Your task to perform on an android device: turn pop-ups on in chrome Image 0: 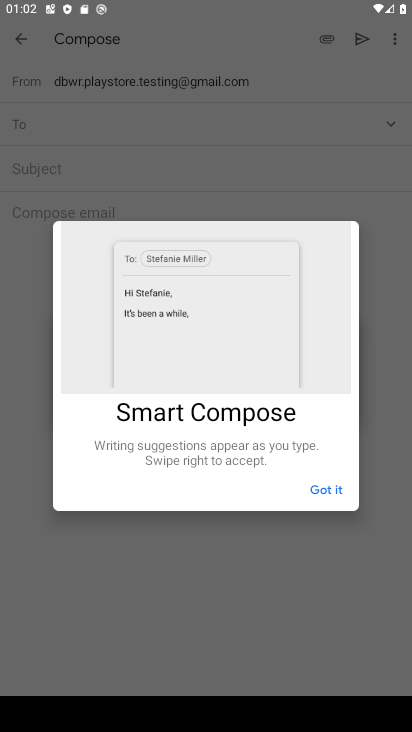
Step 0: press home button
Your task to perform on an android device: turn pop-ups on in chrome Image 1: 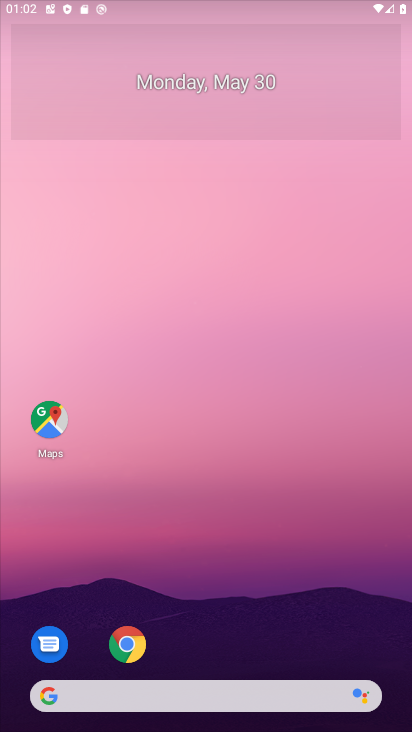
Step 1: drag from (374, 585) to (363, 84)
Your task to perform on an android device: turn pop-ups on in chrome Image 2: 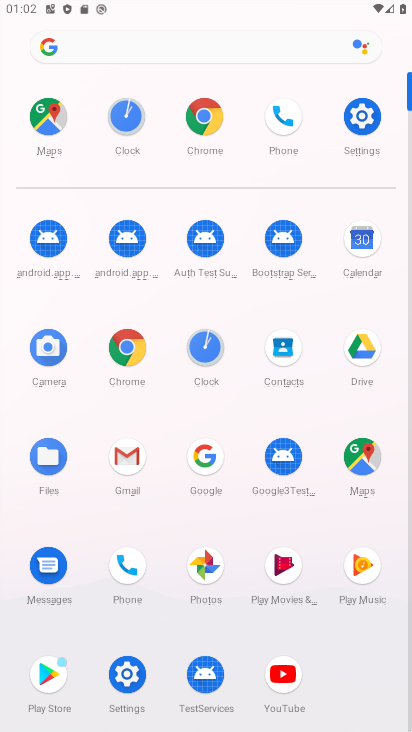
Step 2: click (131, 340)
Your task to perform on an android device: turn pop-ups on in chrome Image 3: 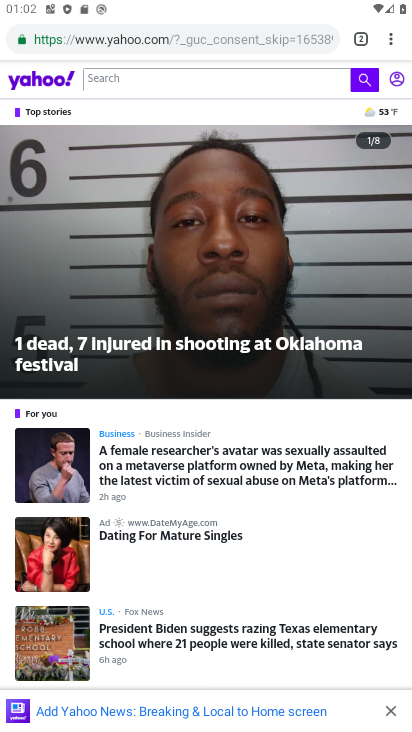
Step 3: drag from (389, 50) to (309, 440)
Your task to perform on an android device: turn pop-ups on in chrome Image 4: 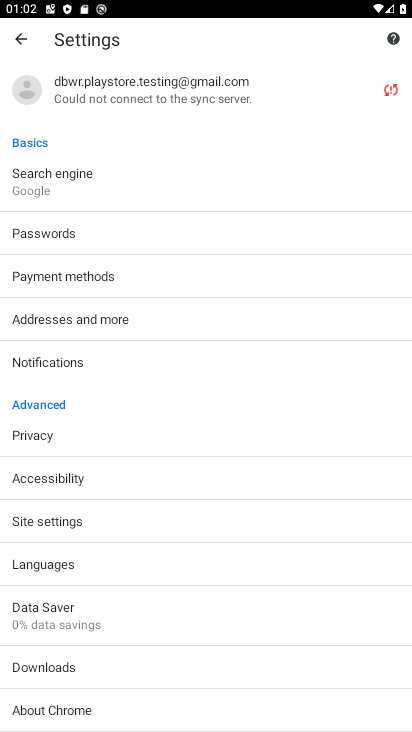
Step 4: drag from (223, 636) to (315, 271)
Your task to perform on an android device: turn pop-ups on in chrome Image 5: 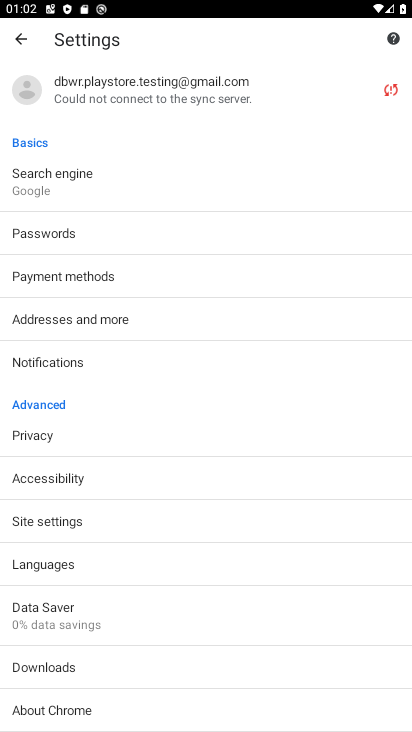
Step 5: click (52, 530)
Your task to perform on an android device: turn pop-ups on in chrome Image 6: 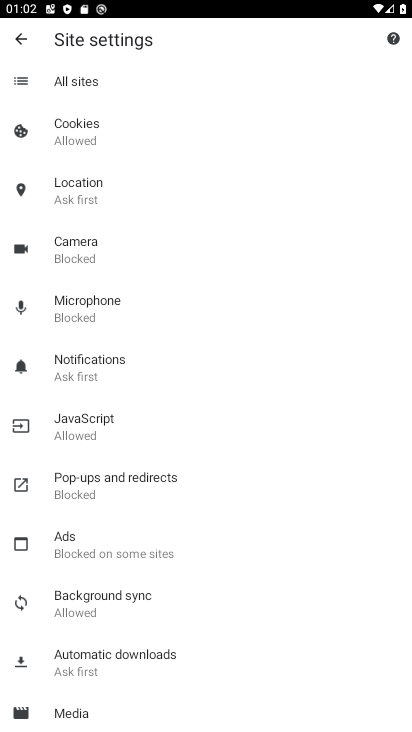
Step 6: drag from (230, 624) to (281, 427)
Your task to perform on an android device: turn pop-ups on in chrome Image 7: 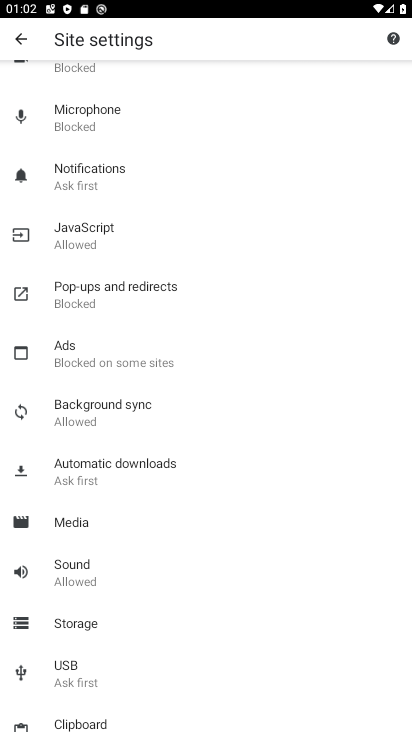
Step 7: click (192, 284)
Your task to perform on an android device: turn pop-ups on in chrome Image 8: 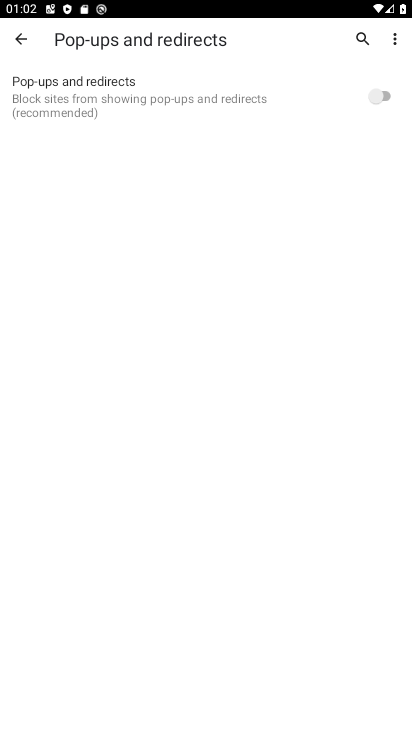
Step 8: click (381, 93)
Your task to perform on an android device: turn pop-ups on in chrome Image 9: 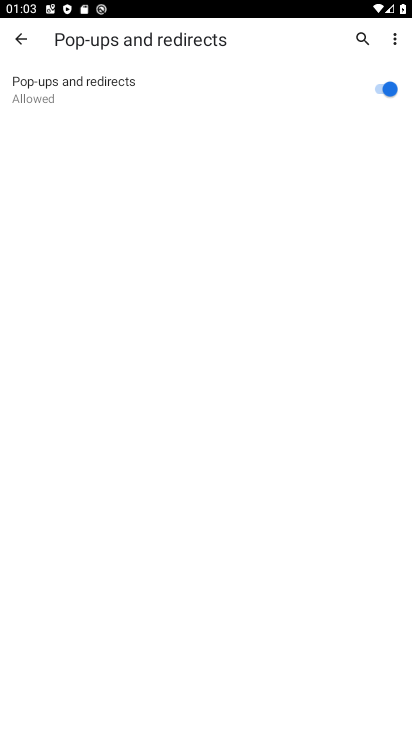
Step 9: task complete